Your task to perform on an android device: show emergency info Image 0: 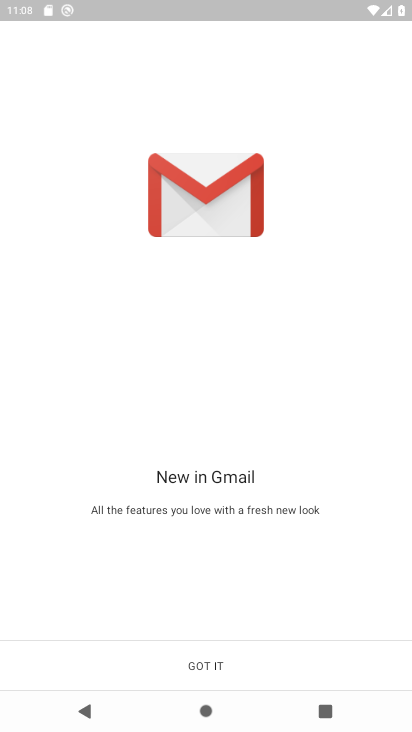
Step 0: press home button
Your task to perform on an android device: show emergency info Image 1: 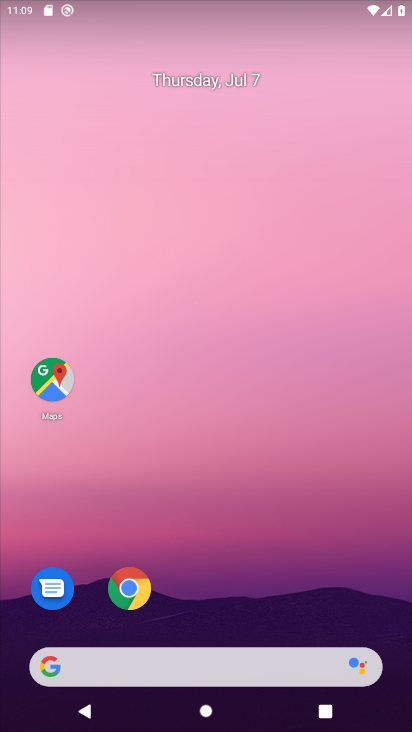
Step 1: drag from (273, 494) to (305, 92)
Your task to perform on an android device: show emergency info Image 2: 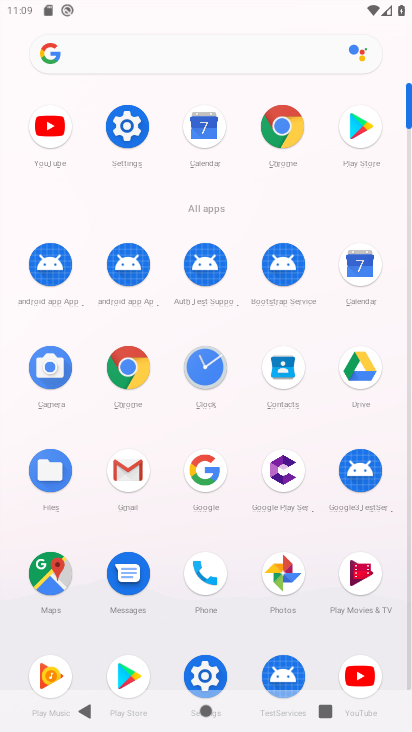
Step 2: click (131, 123)
Your task to perform on an android device: show emergency info Image 3: 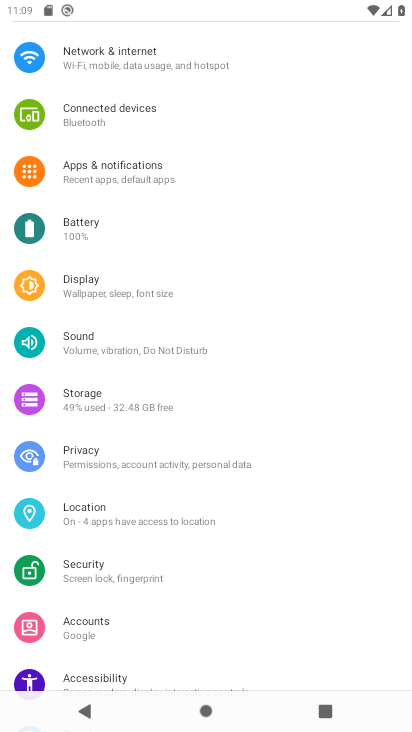
Step 3: drag from (113, 648) to (232, 128)
Your task to perform on an android device: show emergency info Image 4: 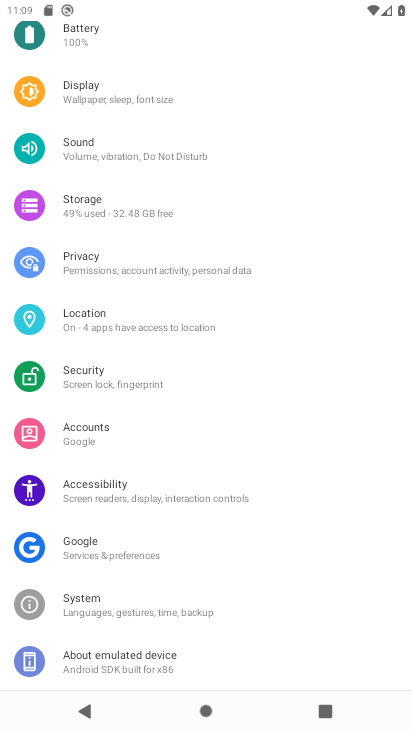
Step 4: click (129, 660)
Your task to perform on an android device: show emergency info Image 5: 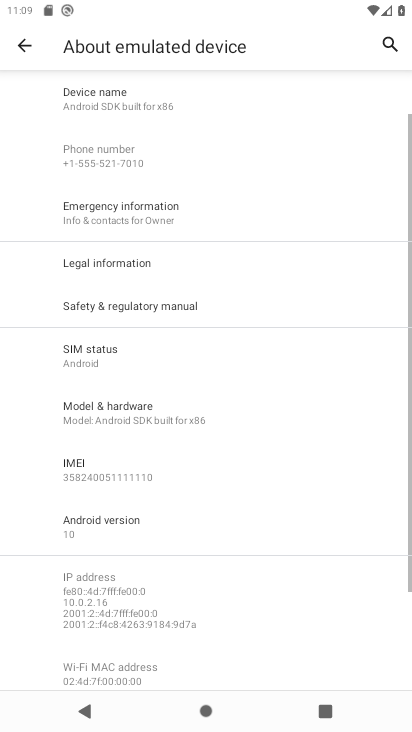
Step 5: click (151, 208)
Your task to perform on an android device: show emergency info Image 6: 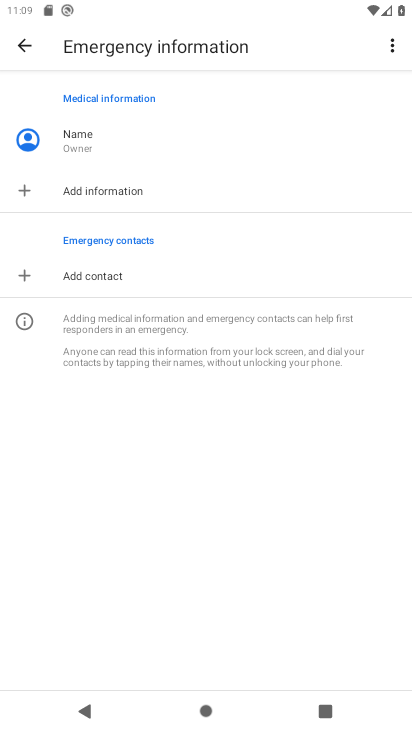
Step 6: task complete